Your task to perform on an android device: Open ESPN.com Image 0: 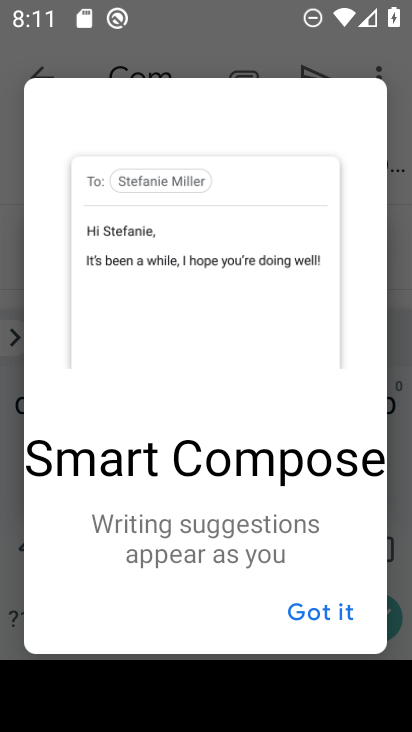
Step 0: press home button
Your task to perform on an android device: Open ESPN.com Image 1: 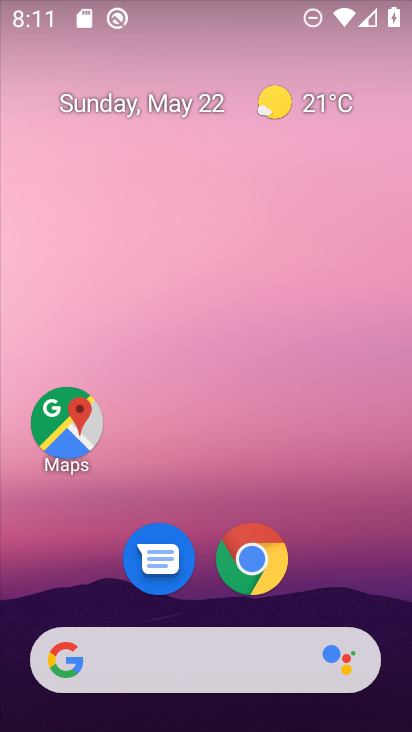
Step 1: drag from (306, 690) to (244, 169)
Your task to perform on an android device: Open ESPN.com Image 2: 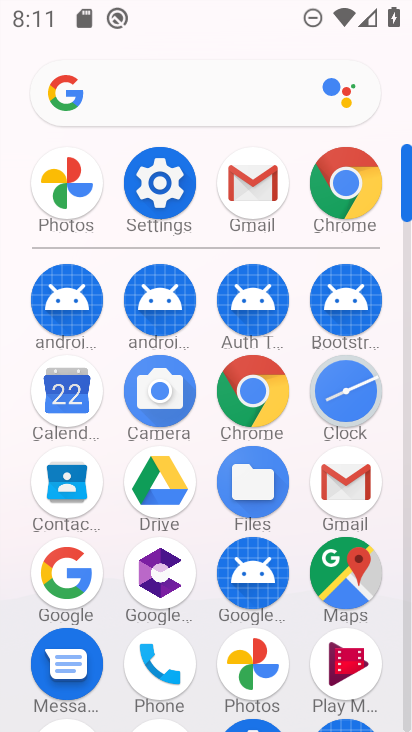
Step 2: click (341, 183)
Your task to perform on an android device: Open ESPN.com Image 3: 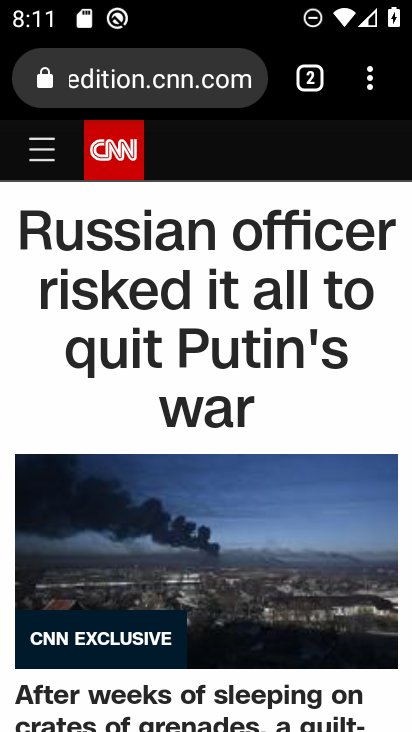
Step 3: click (178, 82)
Your task to perform on an android device: Open ESPN.com Image 4: 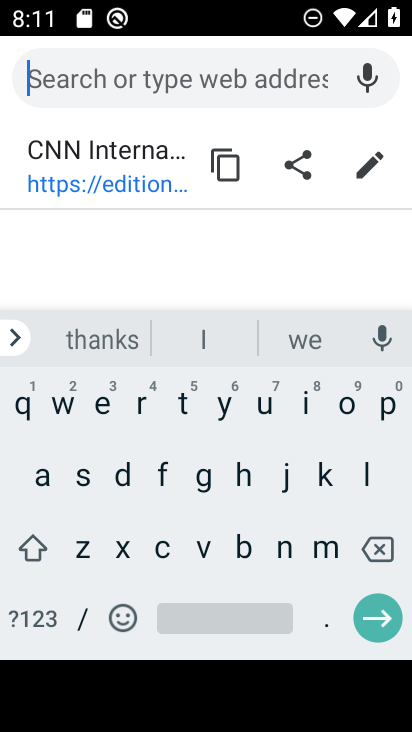
Step 4: click (114, 402)
Your task to perform on an android device: Open ESPN.com Image 5: 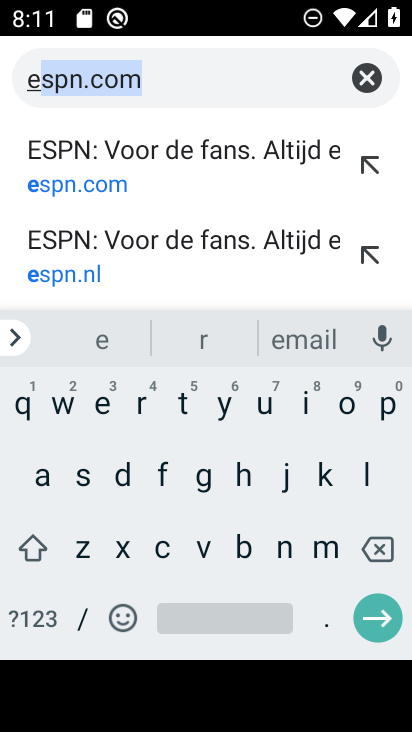
Step 5: click (119, 176)
Your task to perform on an android device: Open ESPN.com Image 6: 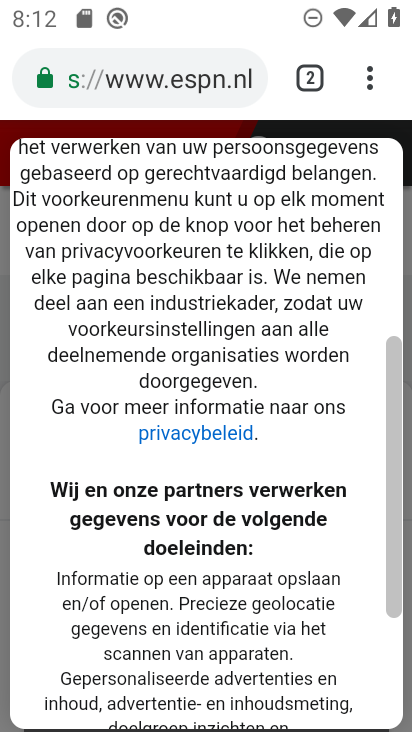
Step 6: drag from (168, 515) to (165, 149)
Your task to perform on an android device: Open ESPN.com Image 7: 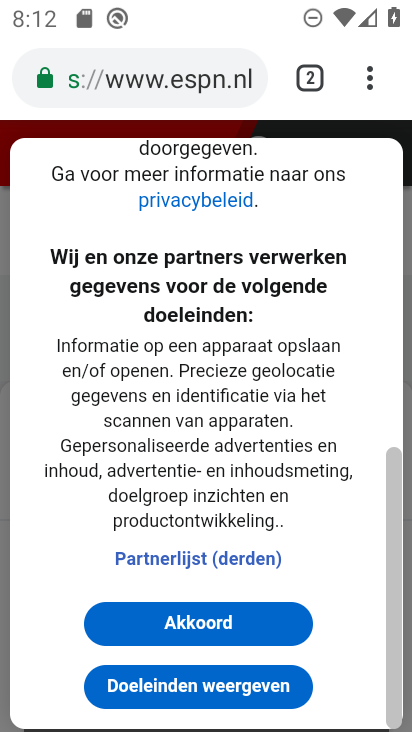
Step 7: drag from (219, 565) to (209, 454)
Your task to perform on an android device: Open ESPN.com Image 8: 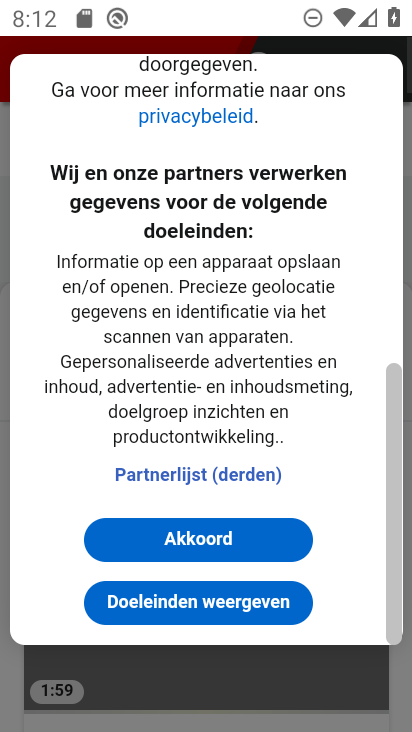
Step 8: drag from (200, 622) to (191, 443)
Your task to perform on an android device: Open ESPN.com Image 9: 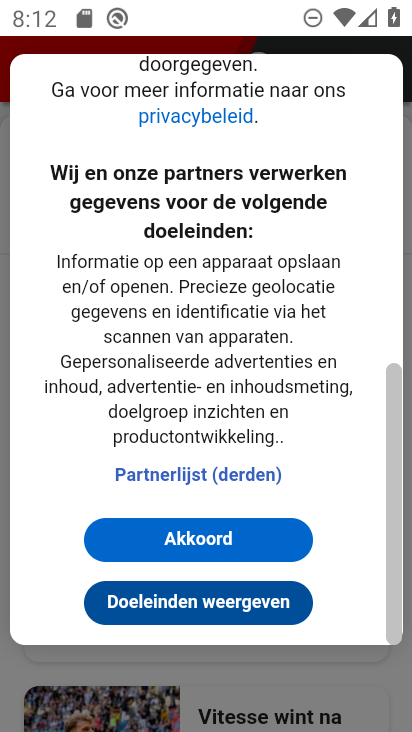
Step 9: click (217, 529)
Your task to perform on an android device: Open ESPN.com Image 10: 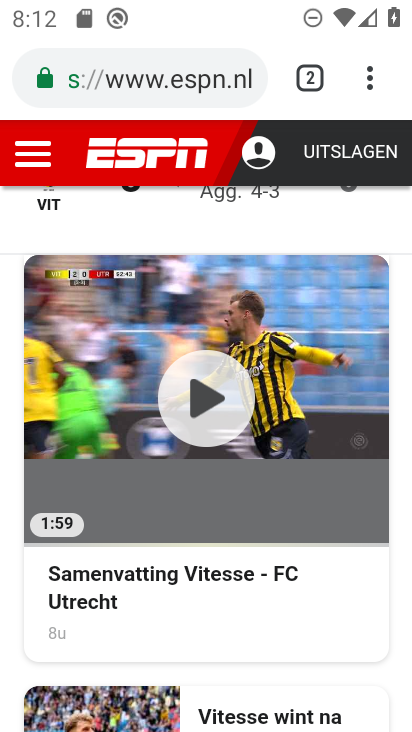
Step 10: task complete